Your task to perform on an android device: Go to Google Image 0: 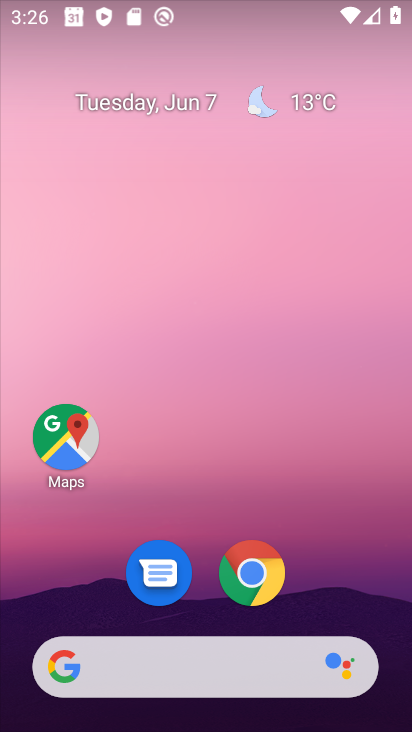
Step 0: drag from (332, 578) to (310, 239)
Your task to perform on an android device: Go to Google Image 1: 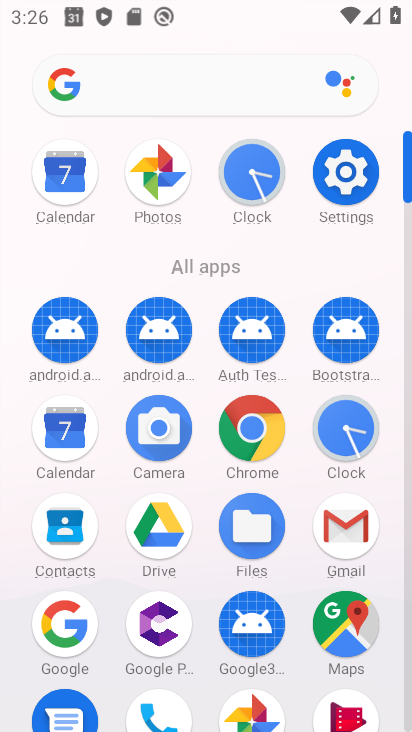
Step 1: click (64, 649)
Your task to perform on an android device: Go to Google Image 2: 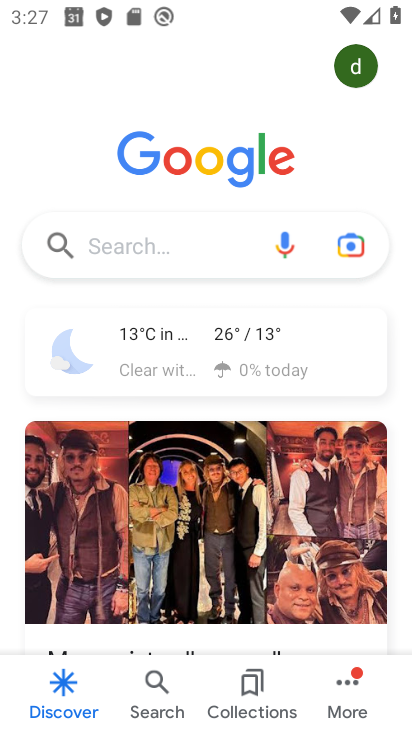
Step 2: task complete